Your task to perform on an android device: turn off wifi Image 0: 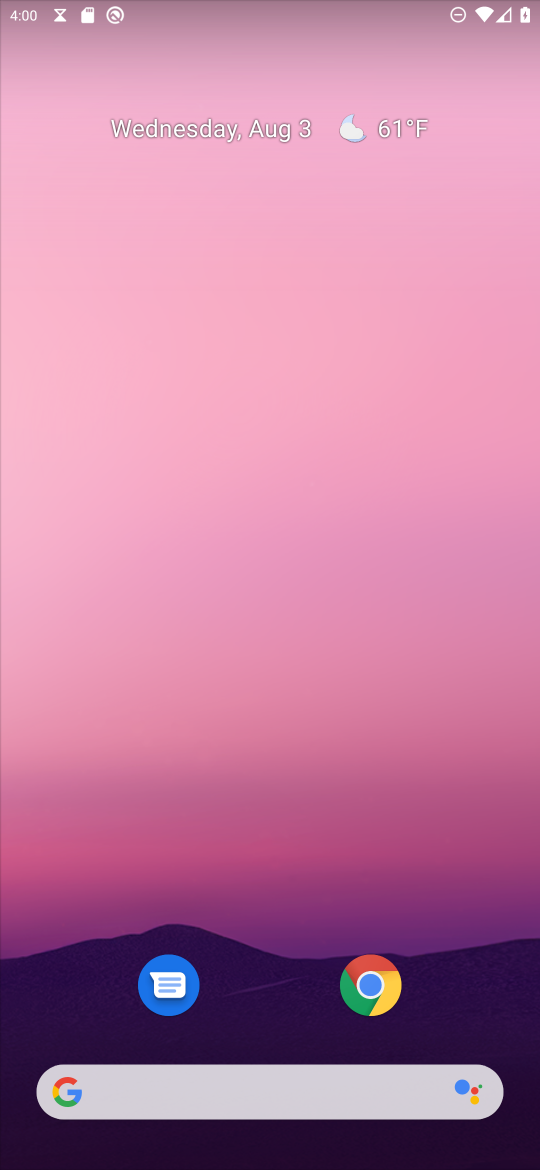
Step 0: drag from (275, 994) to (308, 13)
Your task to perform on an android device: turn off wifi Image 1: 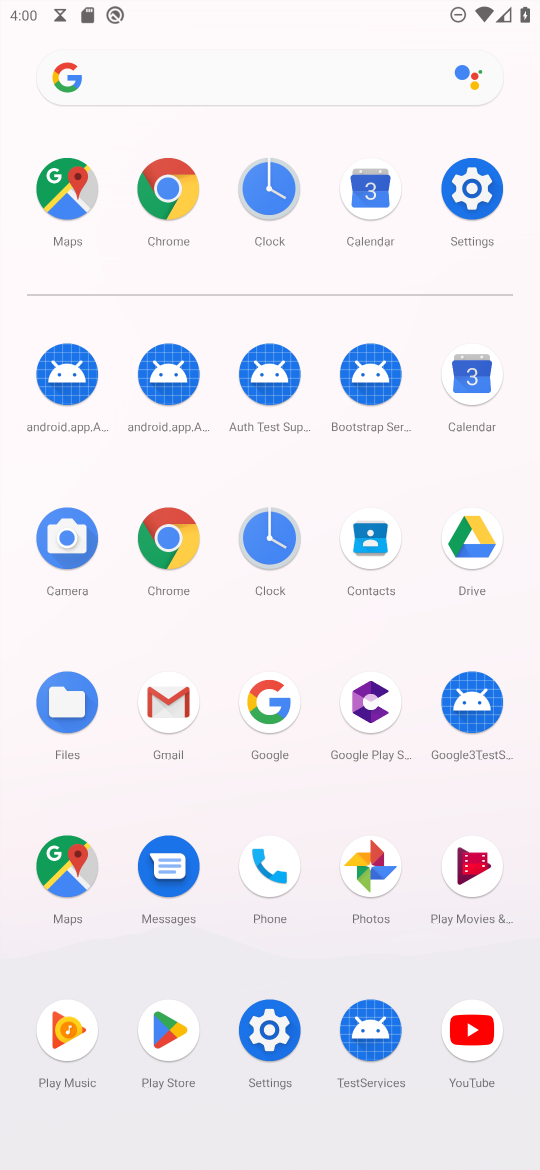
Step 1: click (466, 195)
Your task to perform on an android device: turn off wifi Image 2: 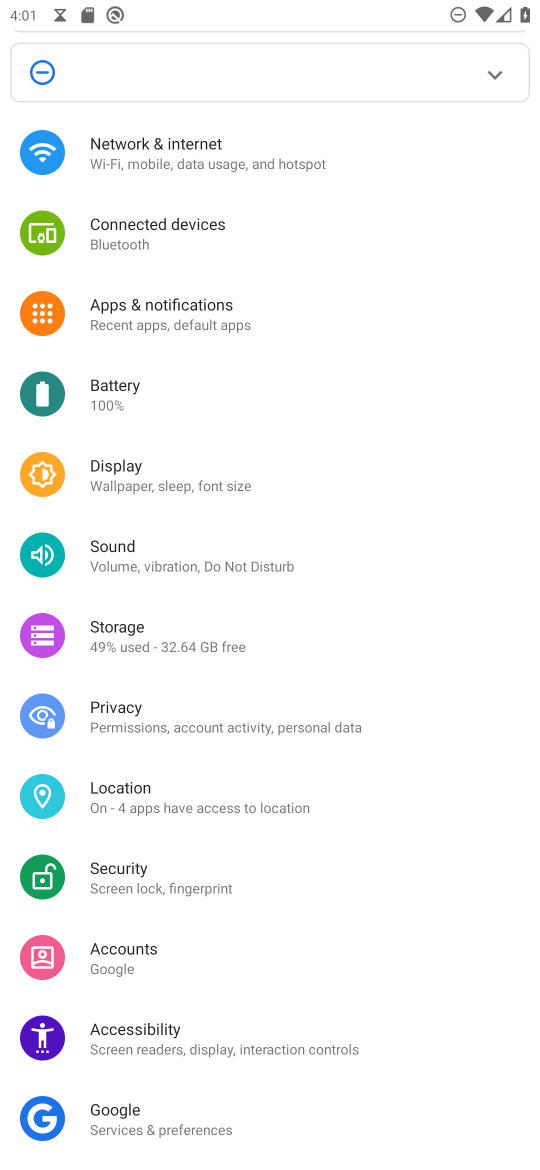
Step 2: click (205, 181)
Your task to perform on an android device: turn off wifi Image 3: 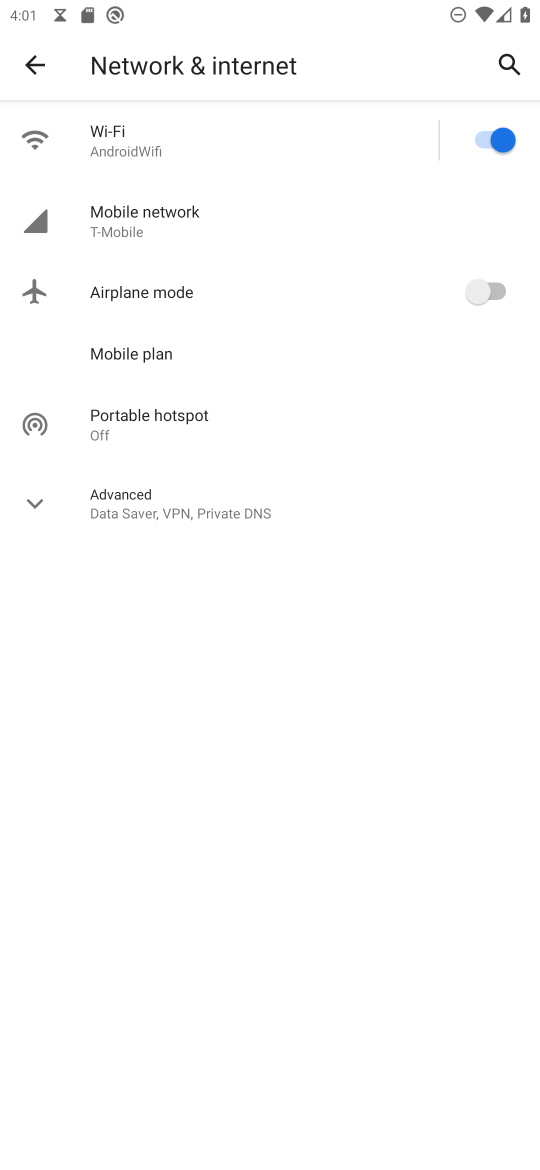
Step 3: click (506, 157)
Your task to perform on an android device: turn off wifi Image 4: 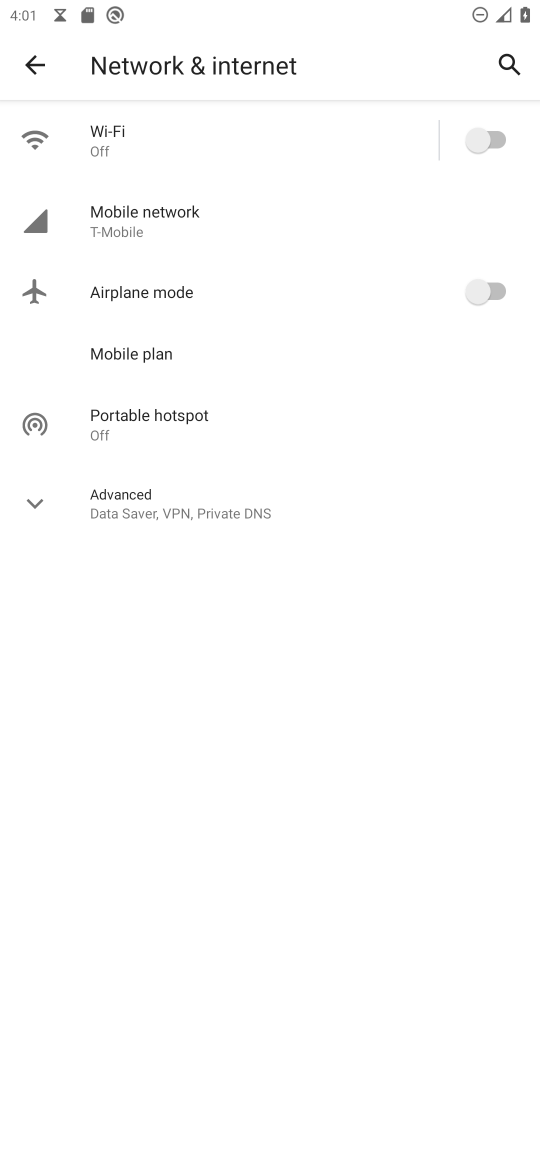
Step 4: task complete